Your task to perform on an android device: snooze an email in the gmail app Image 0: 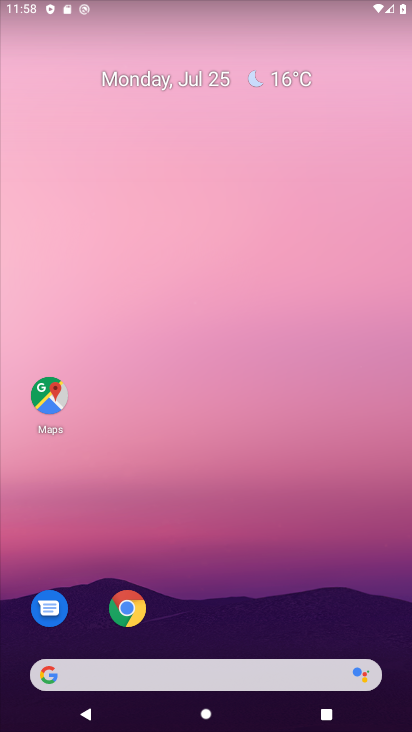
Step 0: drag from (223, 610) to (206, 182)
Your task to perform on an android device: snooze an email in the gmail app Image 1: 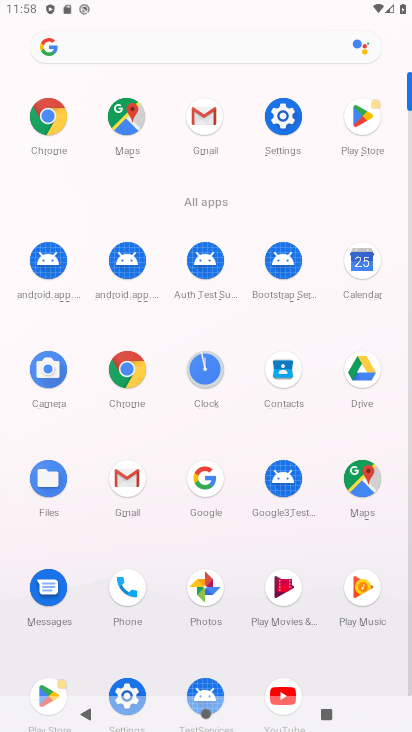
Step 1: click (210, 129)
Your task to perform on an android device: snooze an email in the gmail app Image 2: 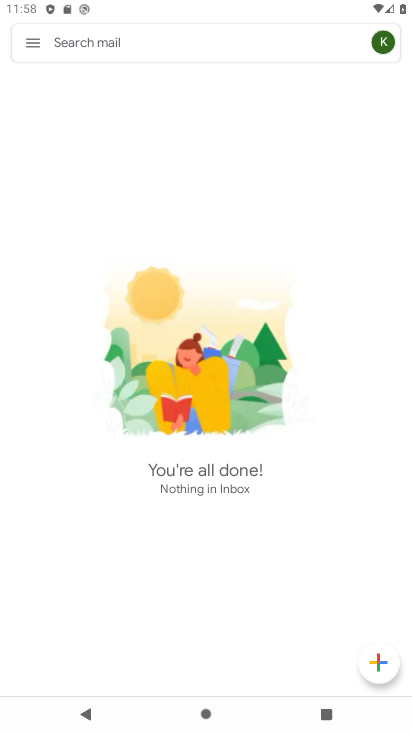
Step 2: click (28, 50)
Your task to perform on an android device: snooze an email in the gmail app Image 3: 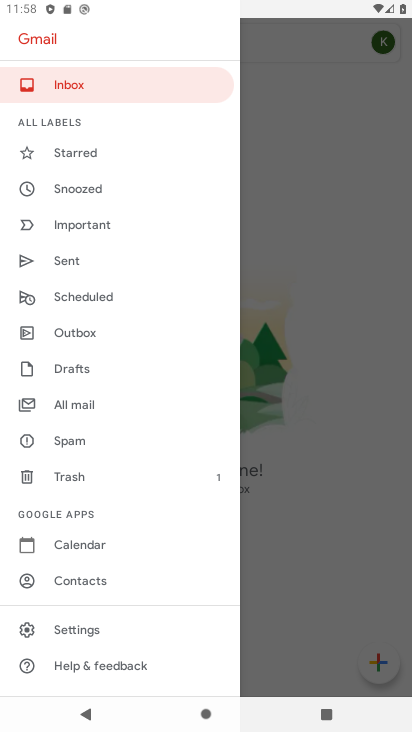
Step 3: click (70, 178)
Your task to perform on an android device: snooze an email in the gmail app Image 4: 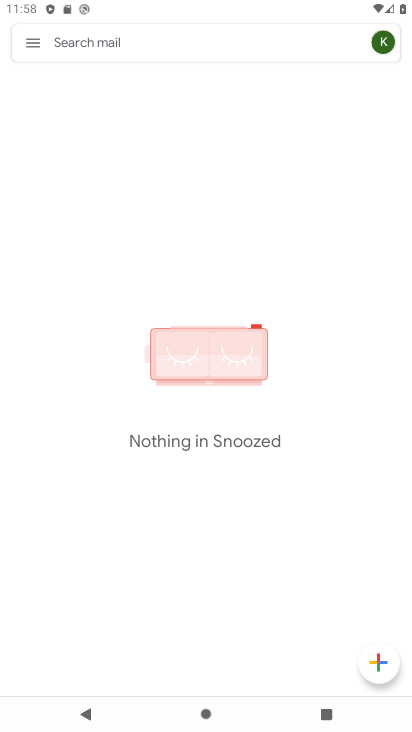
Step 4: task complete